Your task to perform on an android device: Open maps Image 0: 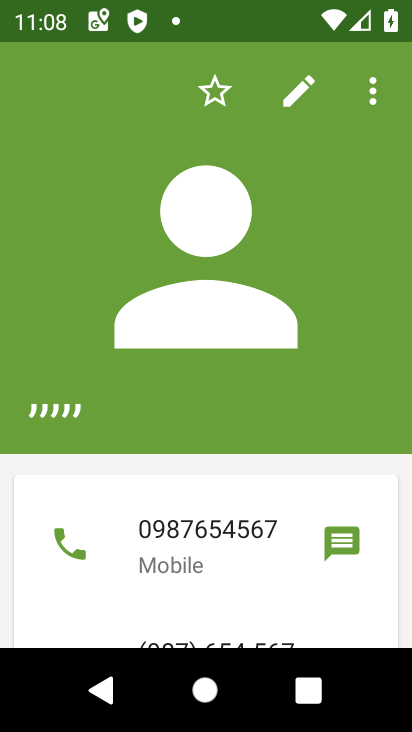
Step 0: press home button
Your task to perform on an android device: Open maps Image 1: 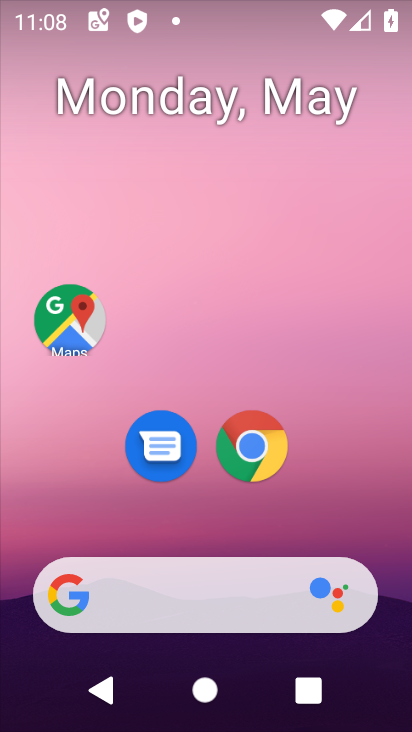
Step 1: click (72, 317)
Your task to perform on an android device: Open maps Image 2: 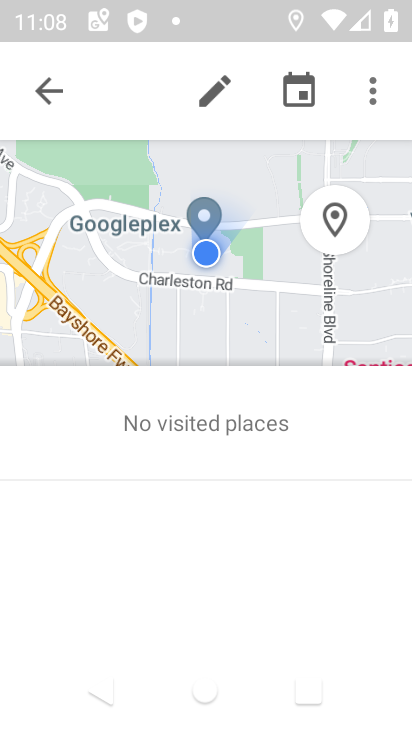
Step 2: task complete